Your task to perform on an android device: change notifications settings Image 0: 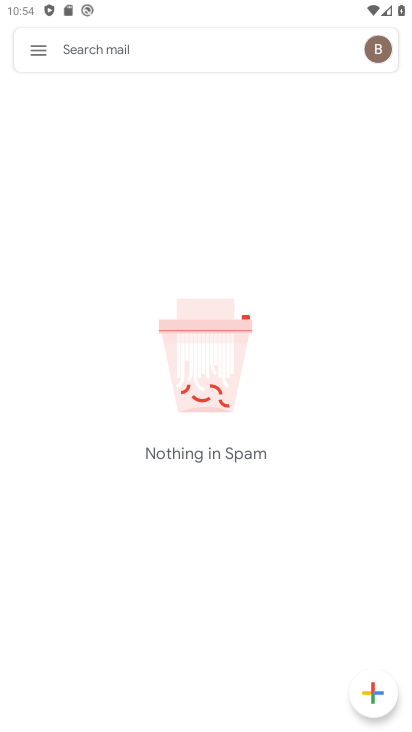
Step 0: press home button
Your task to perform on an android device: change notifications settings Image 1: 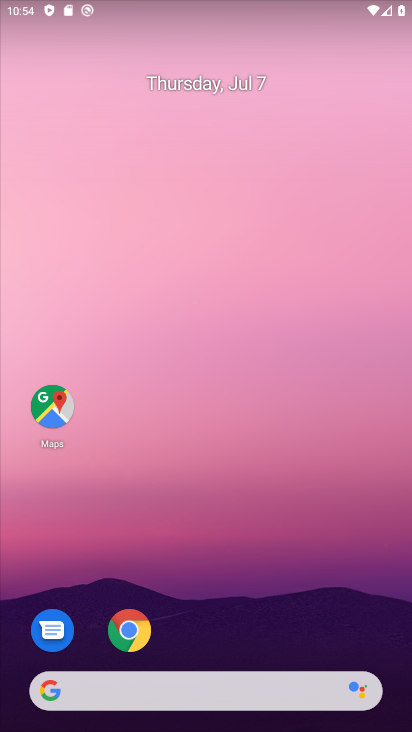
Step 1: drag from (298, 609) to (251, 132)
Your task to perform on an android device: change notifications settings Image 2: 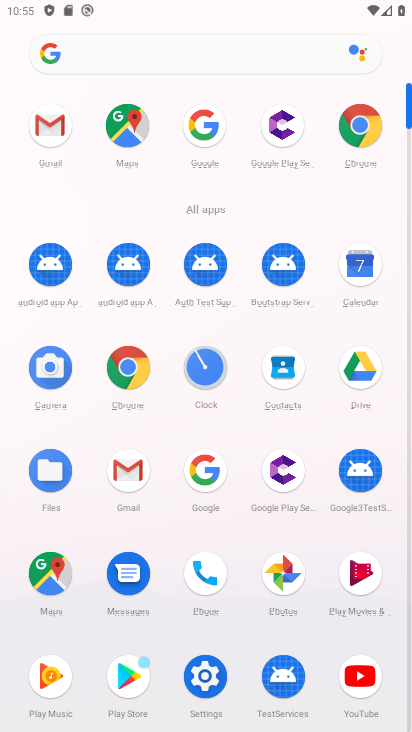
Step 2: click (199, 667)
Your task to perform on an android device: change notifications settings Image 3: 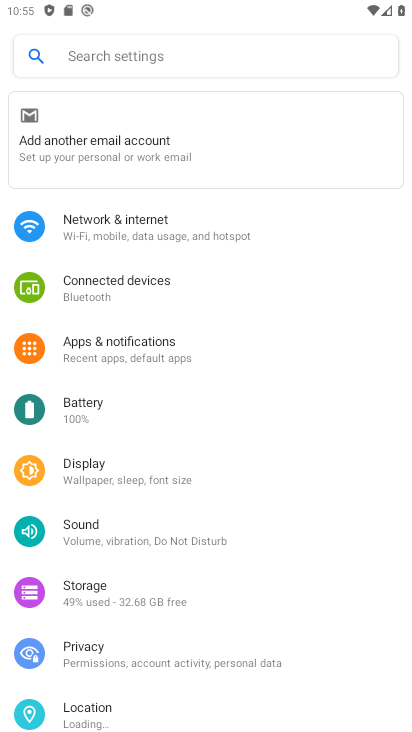
Step 3: click (153, 349)
Your task to perform on an android device: change notifications settings Image 4: 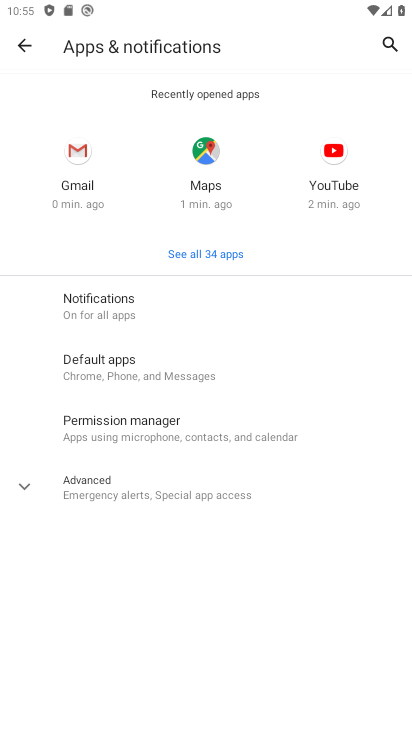
Step 4: click (130, 300)
Your task to perform on an android device: change notifications settings Image 5: 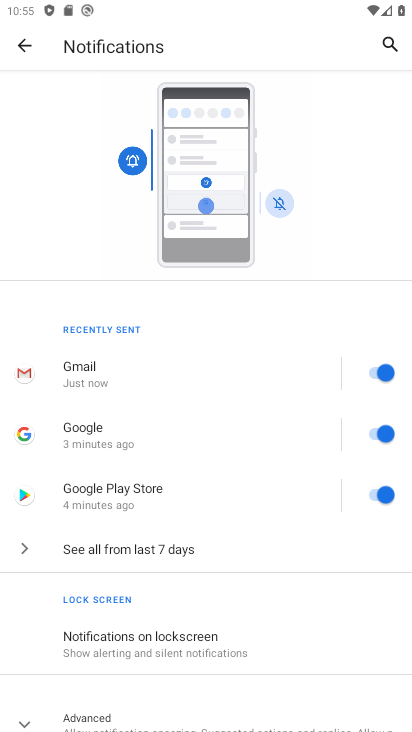
Step 5: click (209, 545)
Your task to perform on an android device: change notifications settings Image 6: 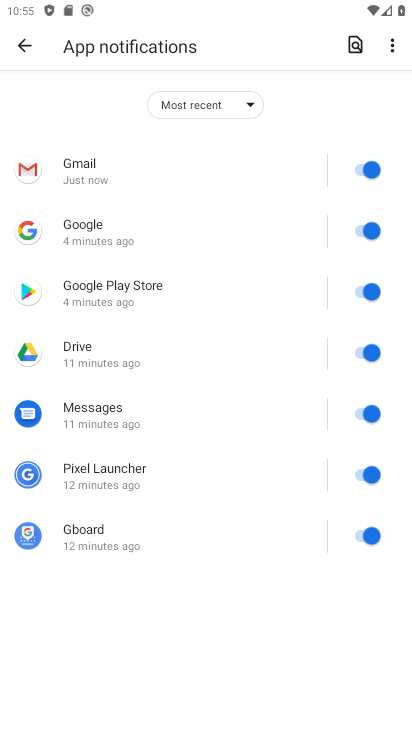
Step 6: click (363, 171)
Your task to perform on an android device: change notifications settings Image 7: 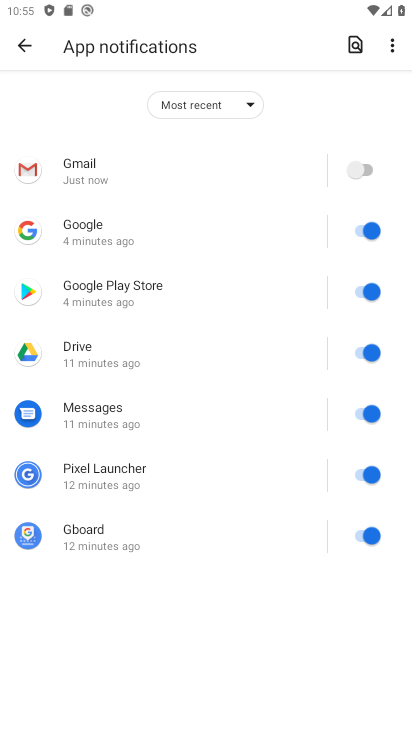
Step 7: click (363, 227)
Your task to perform on an android device: change notifications settings Image 8: 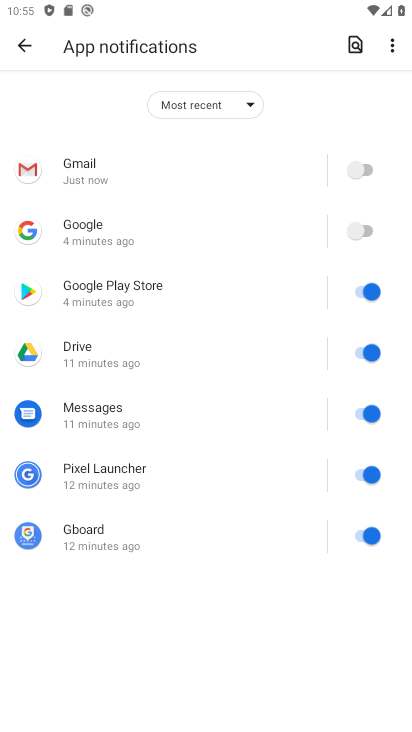
Step 8: click (379, 290)
Your task to perform on an android device: change notifications settings Image 9: 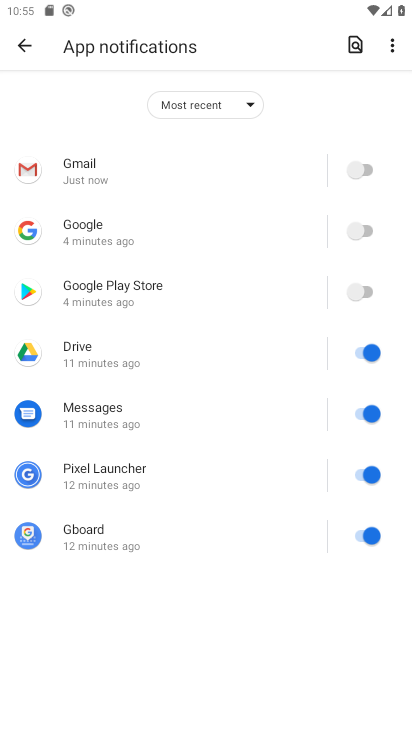
Step 9: click (361, 346)
Your task to perform on an android device: change notifications settings Image 10: 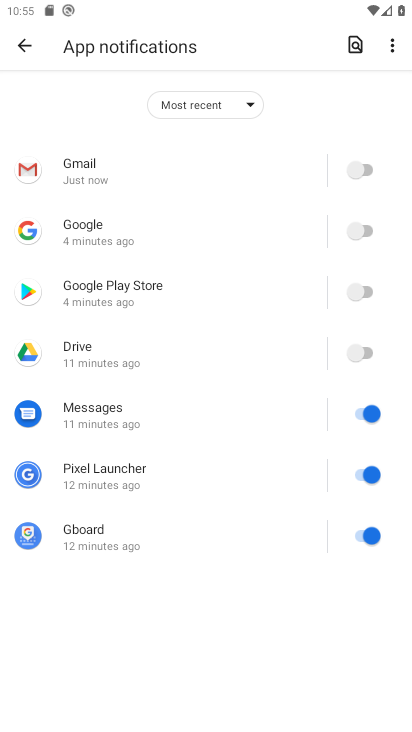
Step 10: click (362, 417)
Your task to perform on an android device: change notifications settings Image 11: 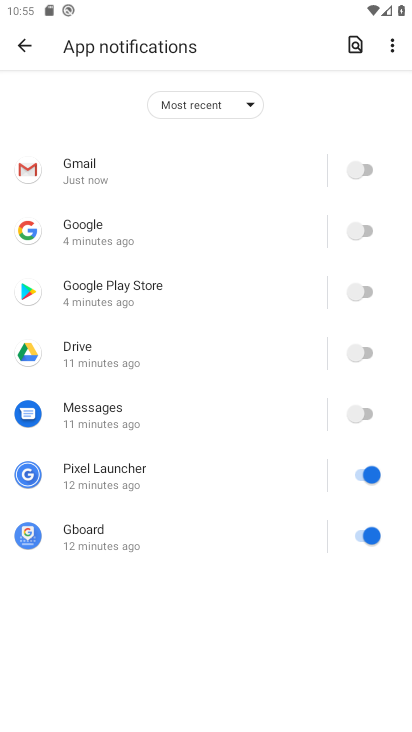
Step 11: click (362, 473)
Your task to perform on an android device: change notifications settings Image 12: 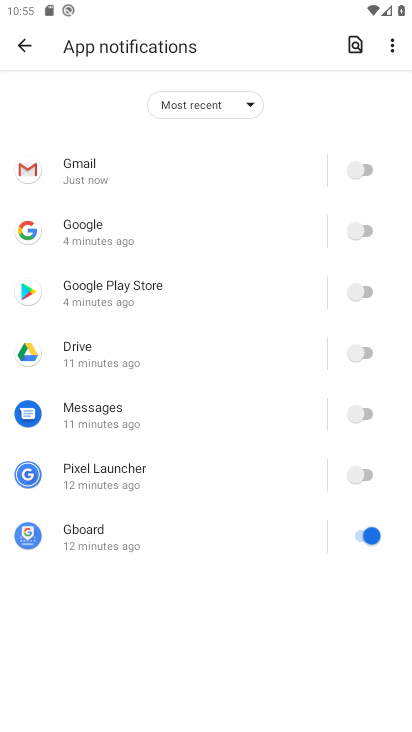
Step 12: click (369, 544)
Your task to perform on an android device: change notifications settings Image 13: 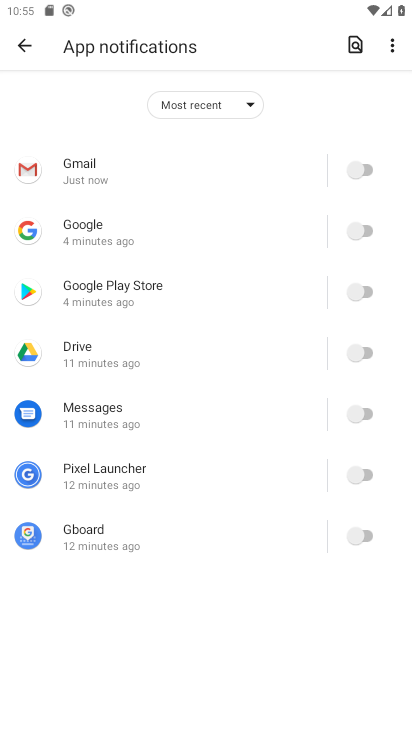
Step 13: click (21, 42)
Your task to perform on an android device: change notifications settings Image 14: 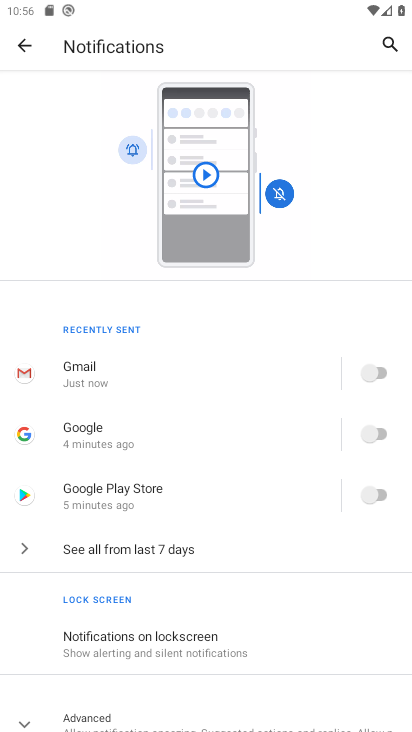
Step 14: click (128, 636)
Your task to perform on an android device: change notifications settings Image 15: 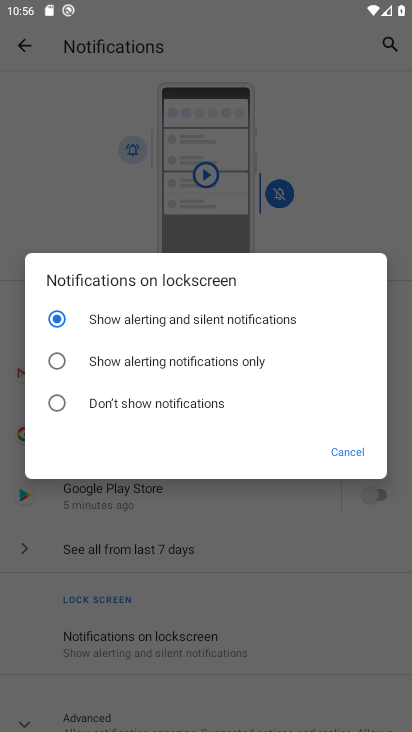
Step 15: click (139, 361)
Your task to perform on an android device: change notifications settings Image 16: 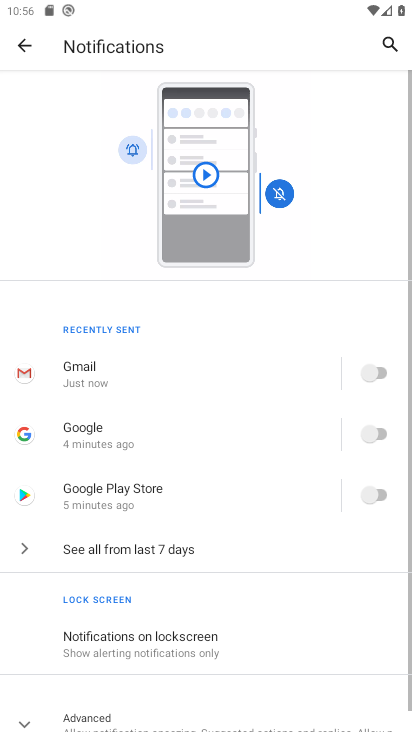
Step 16: drag from (164, 583) to (183, 245)
Your task to perform on an android device: change notifications settings Image 17: 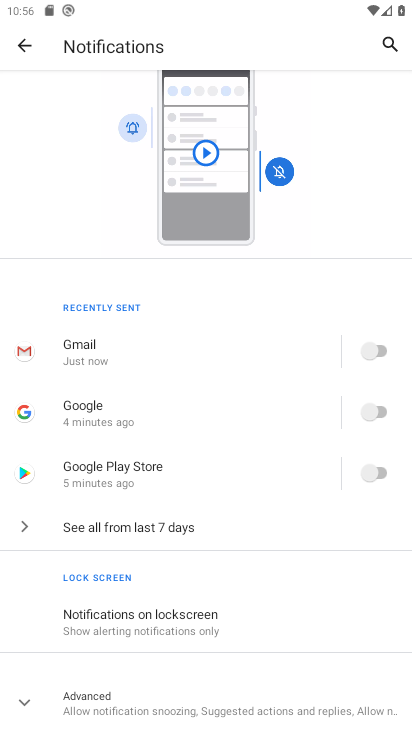
Step 17: click (84, 695)
Your task to perform on an android device: change notifications settings Image 18: 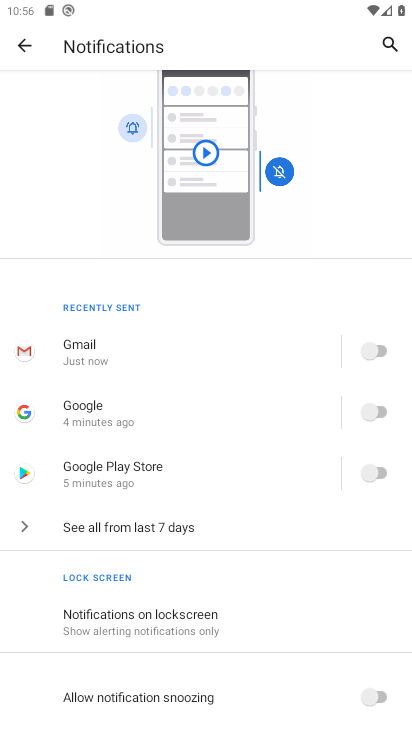
Step 18: drag from (109, 683) to (124, 340)
Your task to perform on an android device: change notifications settings Image 19: 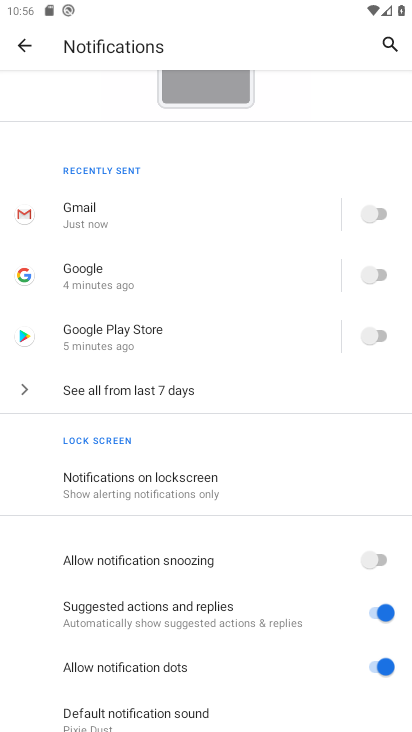
Step 19: click (367, 560)
Your task to perform on an android device: change notifications settings Image 20: 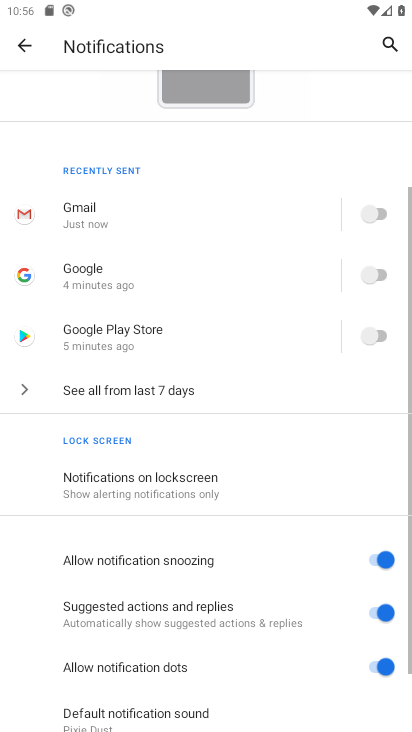
Step 20: click (373, 607)
Your task to perform on an android device: change notifications settings Image 21: 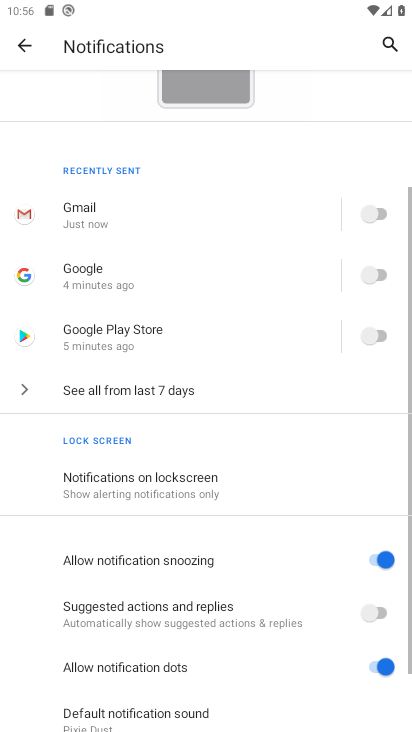
Step 21: click (376, 666)
Your task to perform on an android device: change notifications settings Image 22: 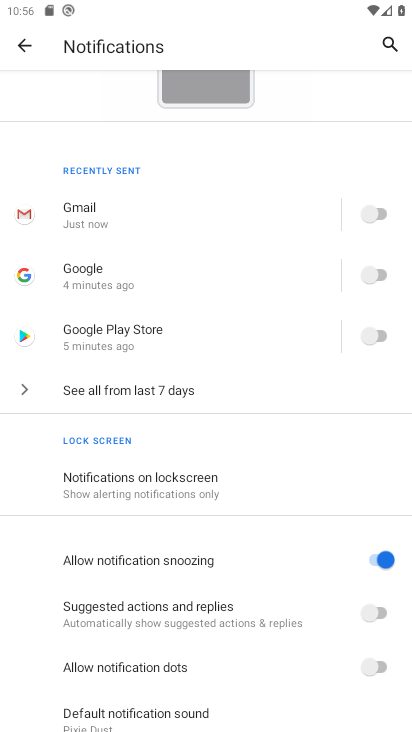
Step 22: task complete